Your task to perform on an android device: show emergency info Image 0: 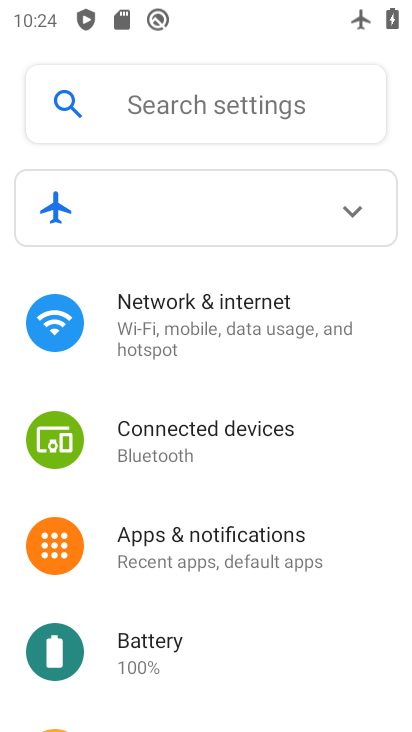
Step 0: drag from (287, 503) to (279, 130)
Your task to perform on an android device: show emergency info Image 1: 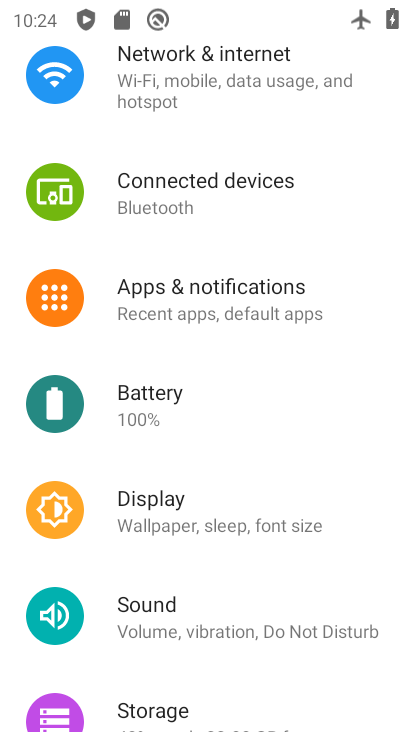
Step 1: drag from (277, 569) to (256, 125)
Your task to perform on an android device: show emergency info Image 2: 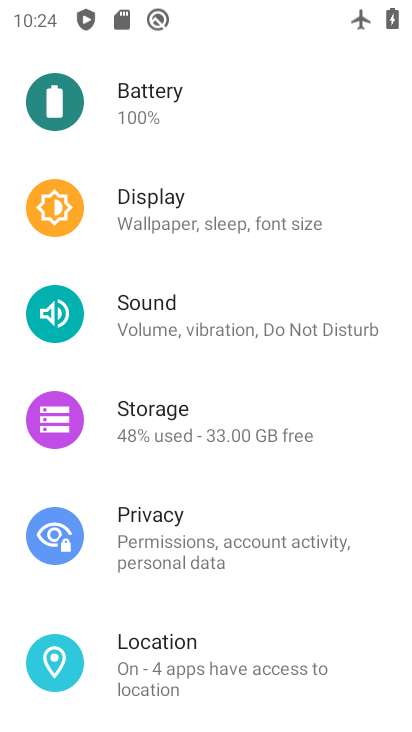
Step 2: drag from (277, 566) to (258, 98)
Your task to perform on an android device: show emergency info Image 3: 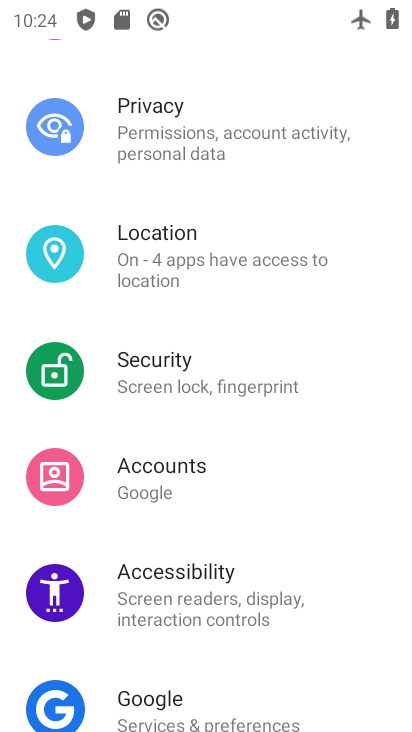
Step 3: drag from (241, 541) to (243, 131)
Your task to perform on an android device: show emergency info Image 4: 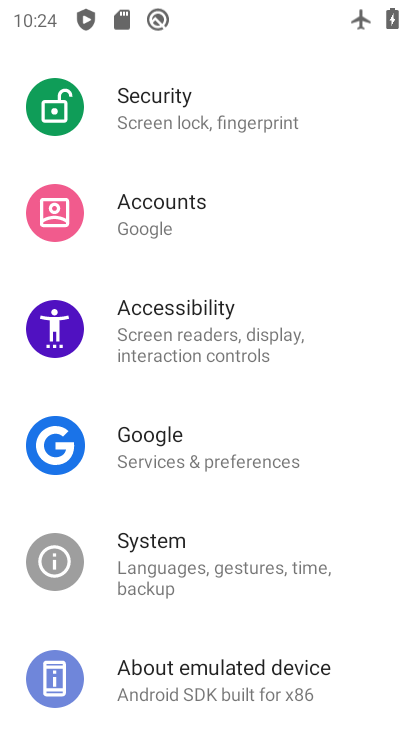
Step 4: drag from (295, 581) to (275, 111)
Your task to perform on an android device: show emergency info Image 5: 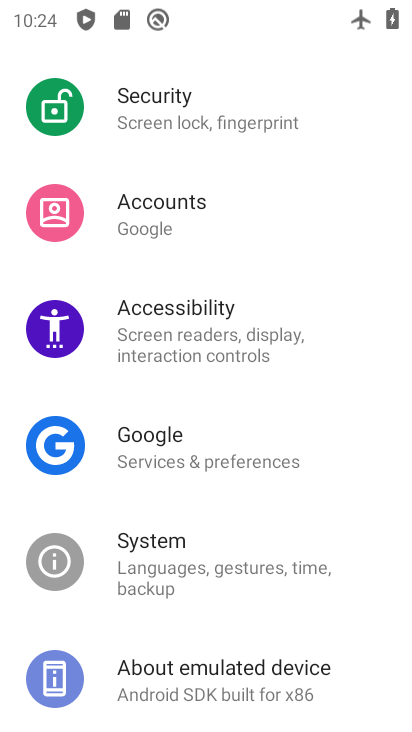
Step 5: click (275, 661)
Your task to perform on an android device: show emergency info Image 6: 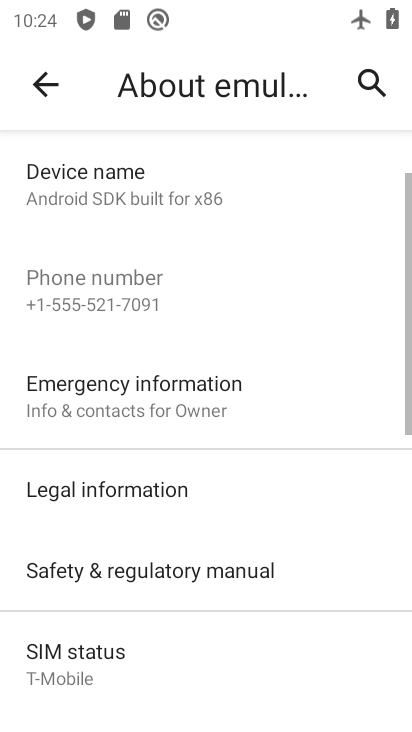
Step 6: drag from (281, 579) to (256, 104)
Your task to perform on an android device: show emergency info Image 7: 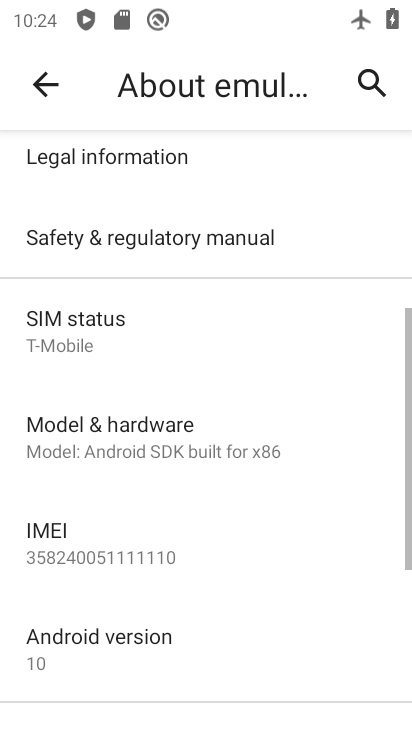
Step 7: drag from (254, 560) to (246, 236)
Your task to perform on an android device: show emergency info Image 8: 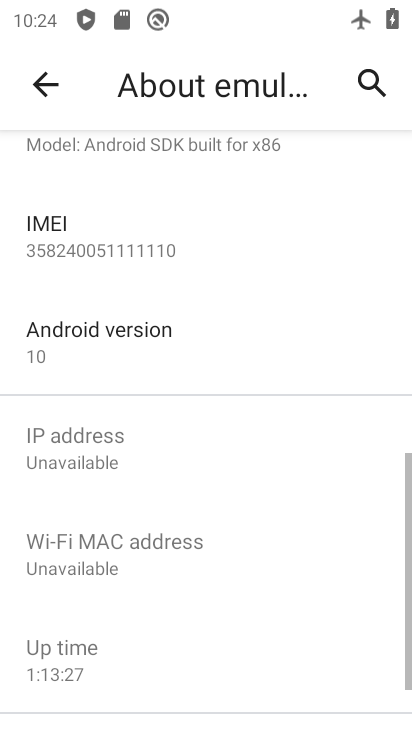
Step 8: drag from (248, 561) to (236, 142)
Your task to perform on an android device: show emergency info Image 9: 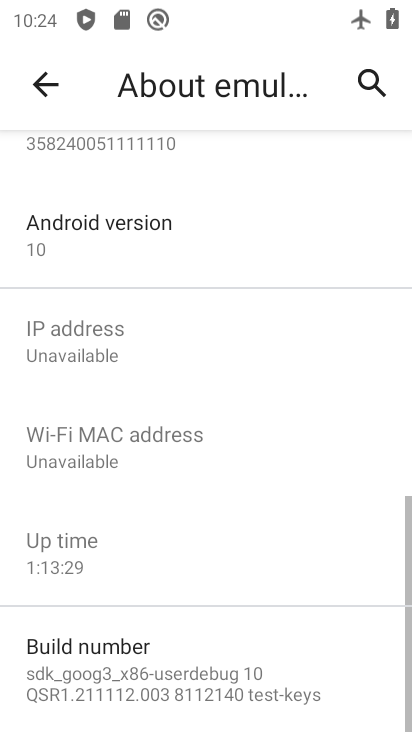
Step 9: drag from (247, 246) to (252, 542)
Your task to perform on an android device: show emergency info Image 10: 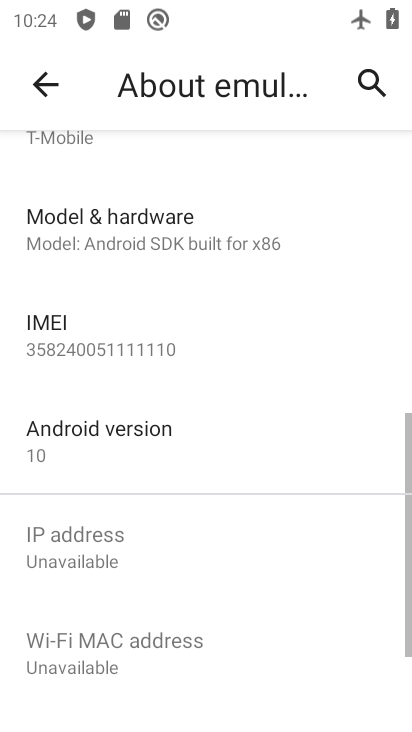
Step 10: drag from (245, 350) to (245, 600)
Your task to perform on an android device: show emergency info Image 11: 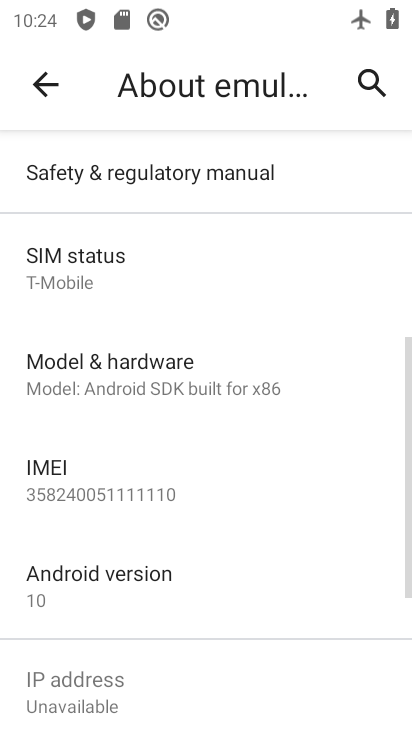
Step 11: drag from (251, 220) to (241, 581)
Your task to perform on an android device: show emergency info Image 12: 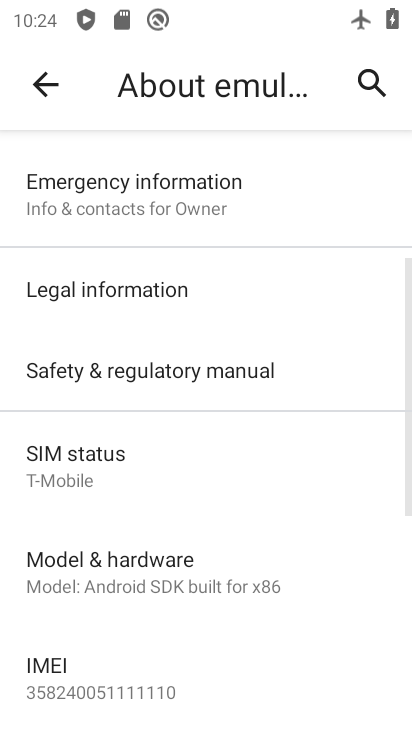
Step 12: drag from (246, 271) to (252, 571)
Your task to perform on an android device: show emergency info Image 13: 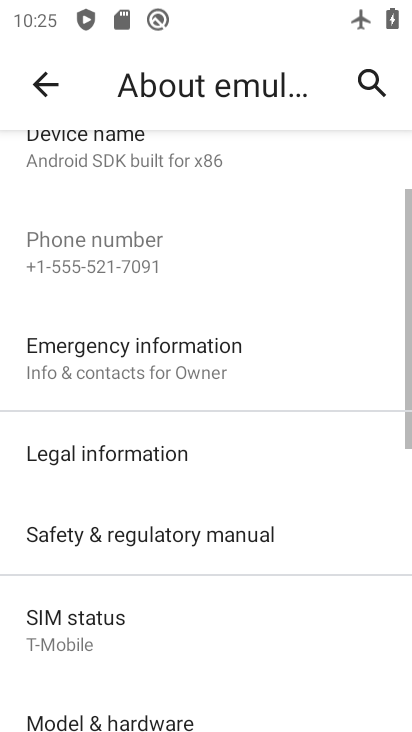
Step 13: click (247, 341)
Your task to perform on an android device: show emergency info Image 14: 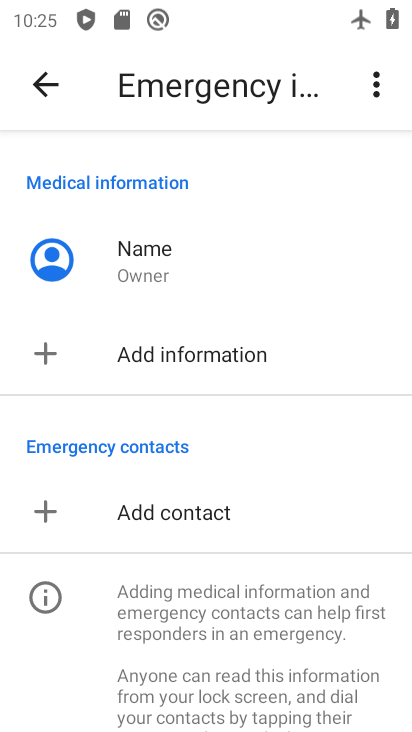
Step 14: task complete